Your task to perform on an android device: Search for "lenovo thinkpad" on bestbuy.com, select the first entry, add it to the cart, then select checkout. Image 0: 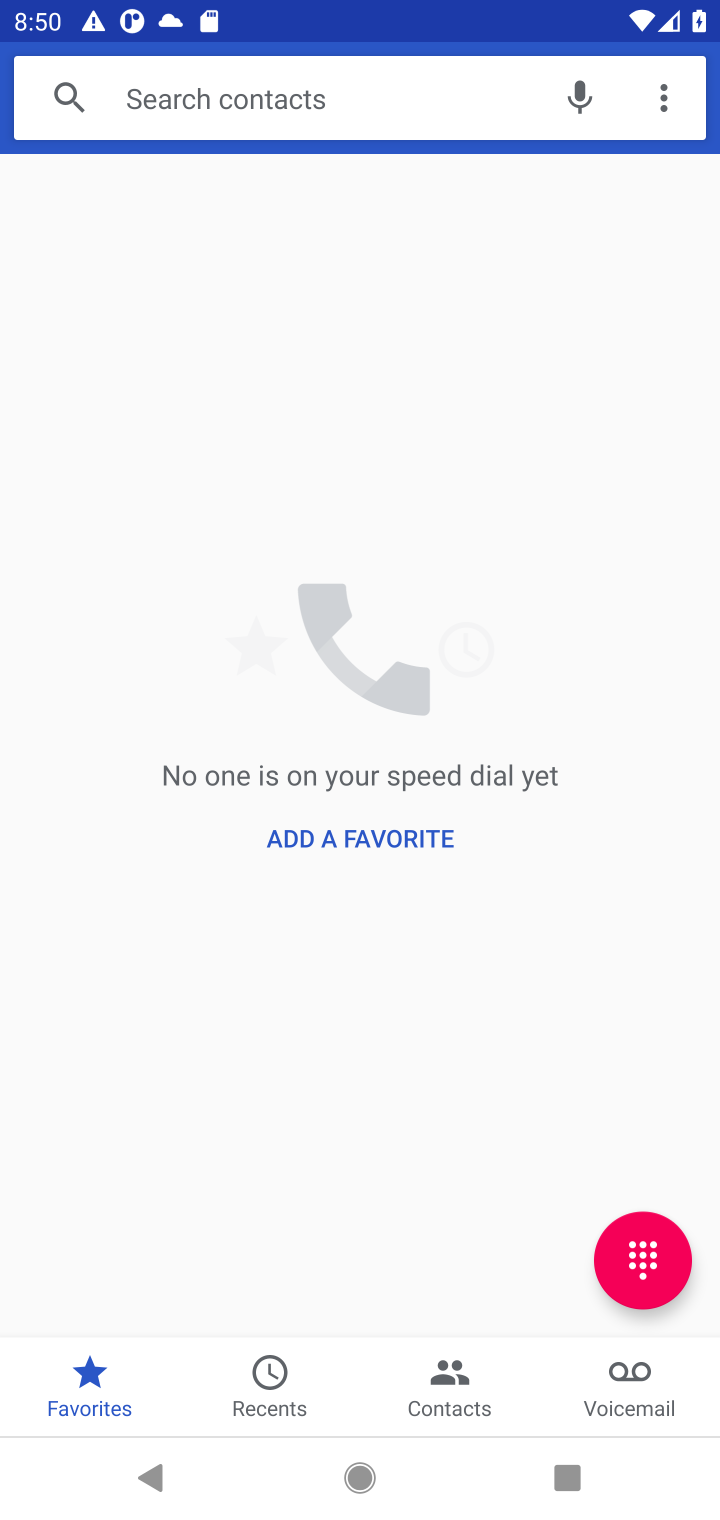
Step 0: press home button
Your task to perform on an android device: Search for "lenovo thinkpad" on bestbuy.com, select the first entry, add it to the cart, then select checkout. Image 1: 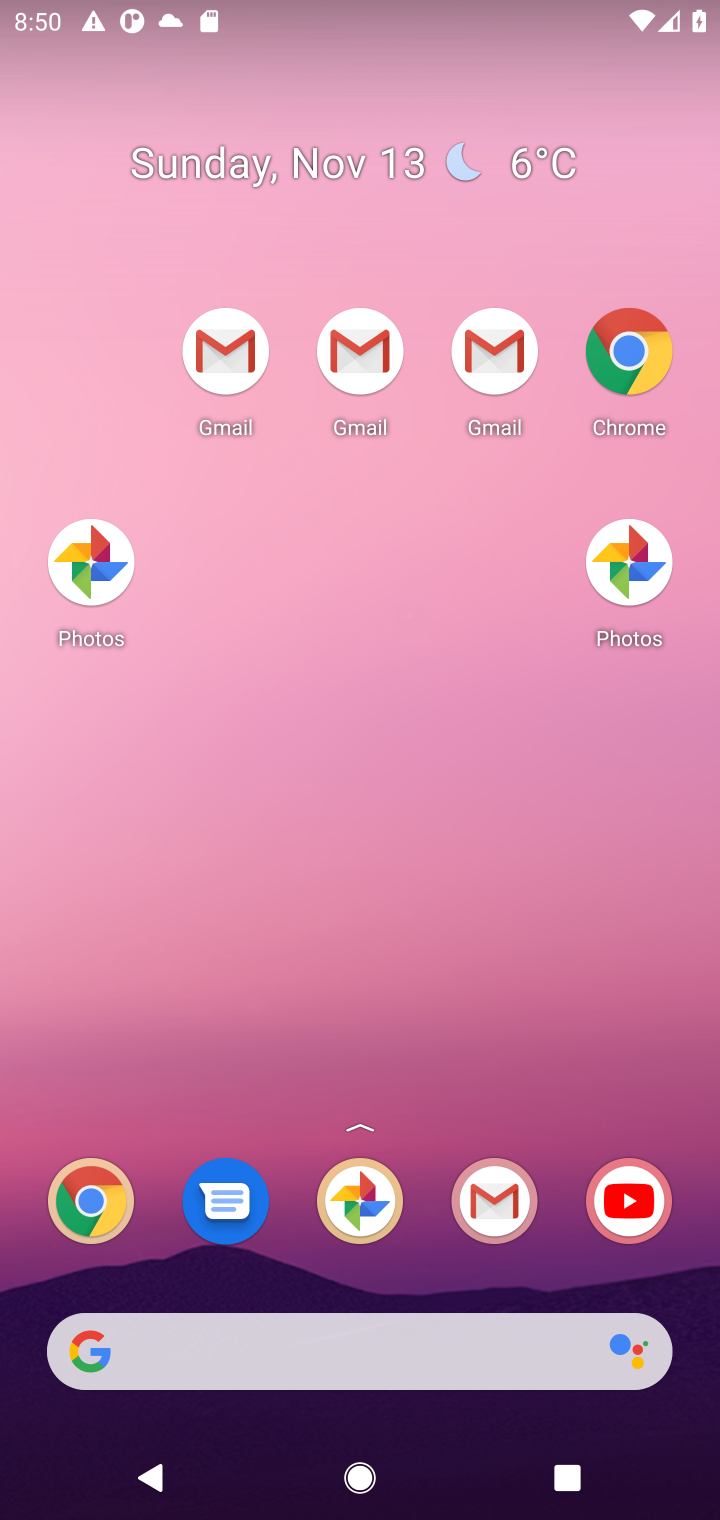
Step 1: drag from (431, 967) to (414, 267)
Your task to perform on an android device: Search for "lenovo thinkpad" on bestbuy.com, select the first entry, add it to the cart, then select checkout. Image 2: 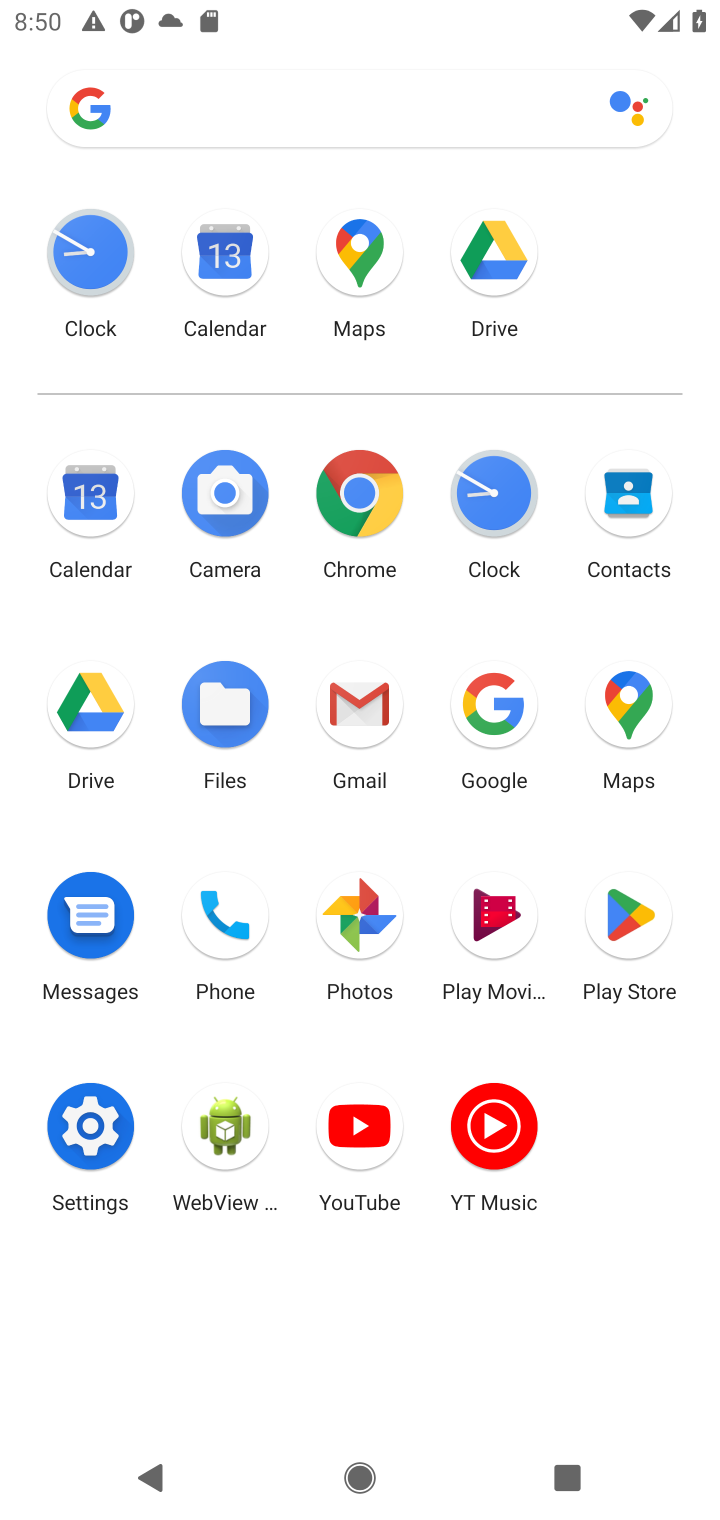
Step 2: click (365, 490)
Your task to perform on an android device: Search for "lenovo thinkpad" on bestbuy.com, select the first entry, add it to the cart, then select checkout. Image 3: 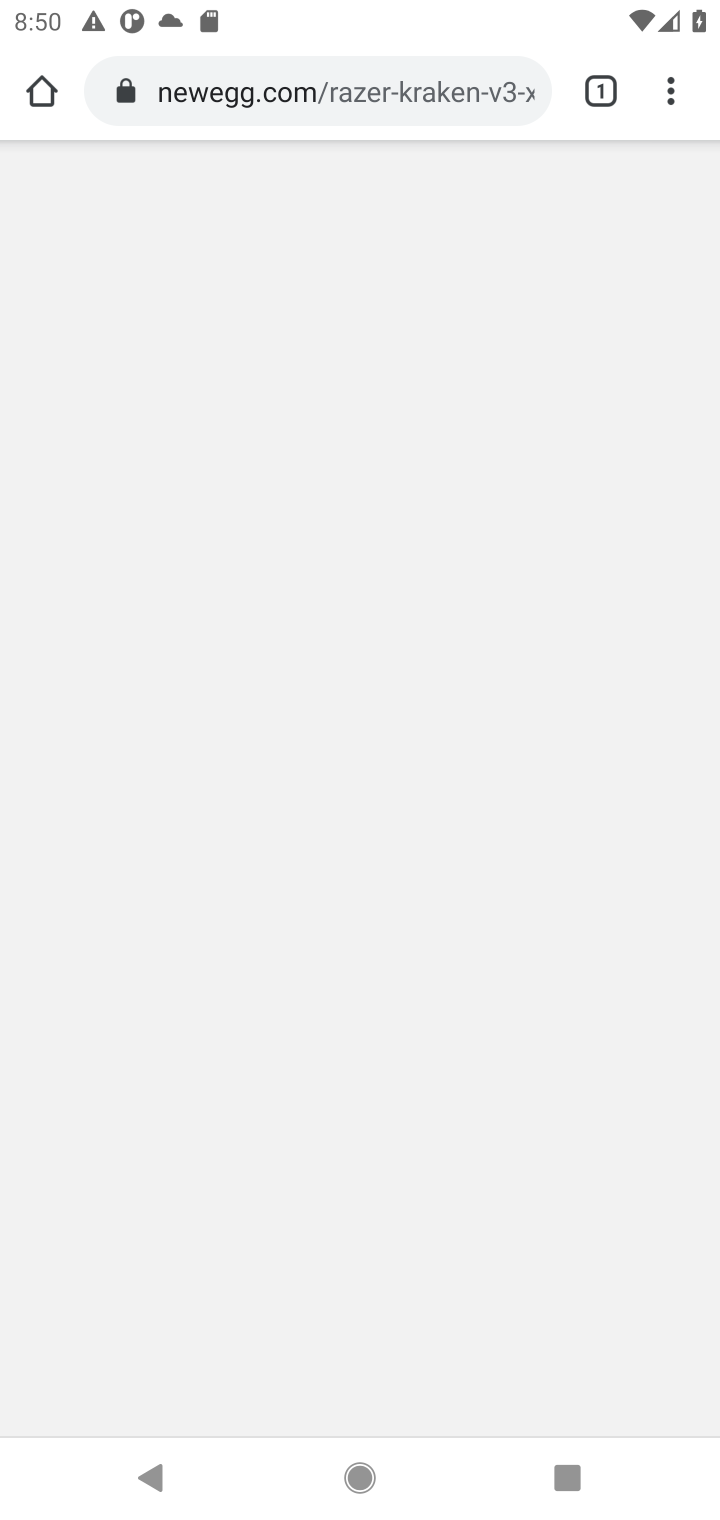
Step 3: click (346, 86)
Your task to perform on an android device: Search for "lenovo thinkpad" on bestbuy.com, select the first entry, add it to the cart, then select checkout. Image 4: 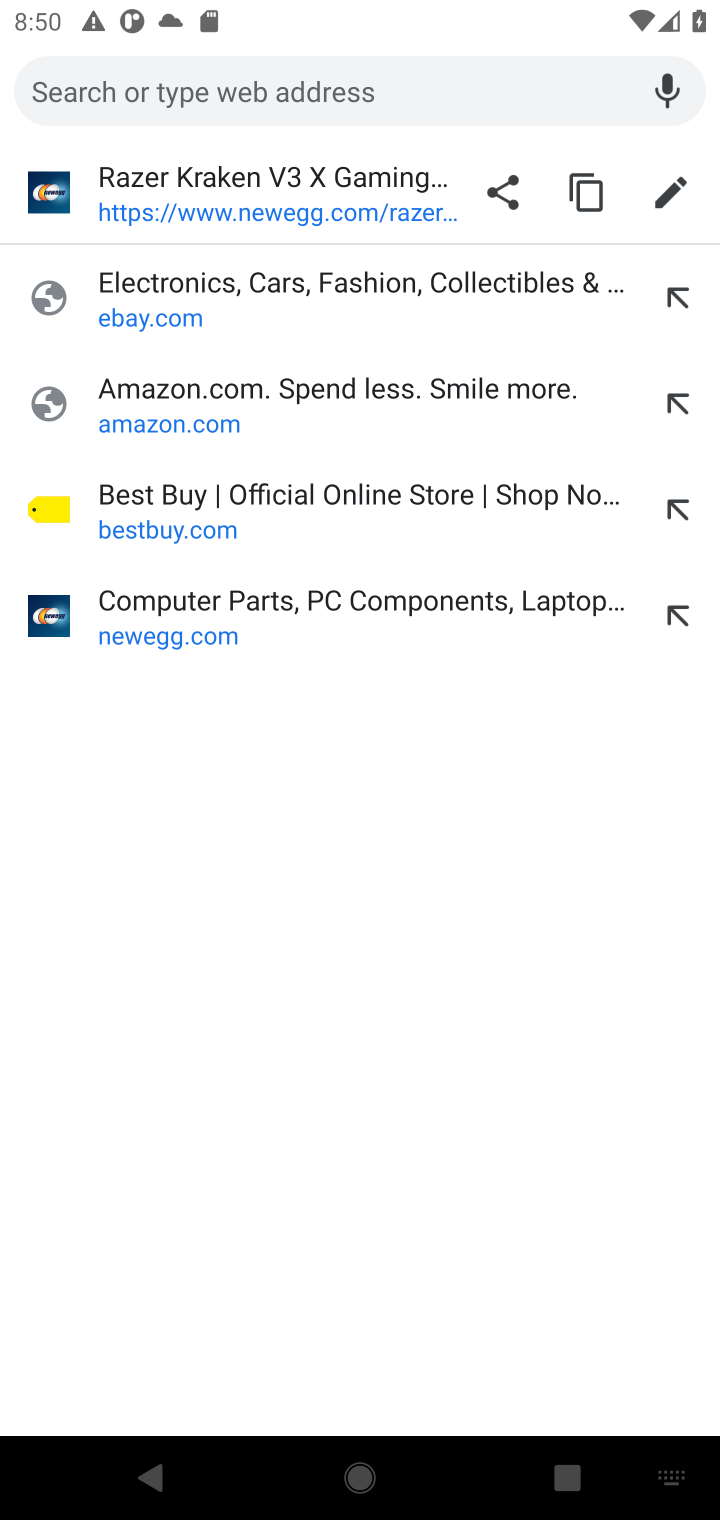
Step 4: type "bestbuy.com"
Your task to perform on an android device: Search for "lenovo thinkpad" on bestbuy.com, select the first entry, add it to the cart, then select checkout. Image 5: 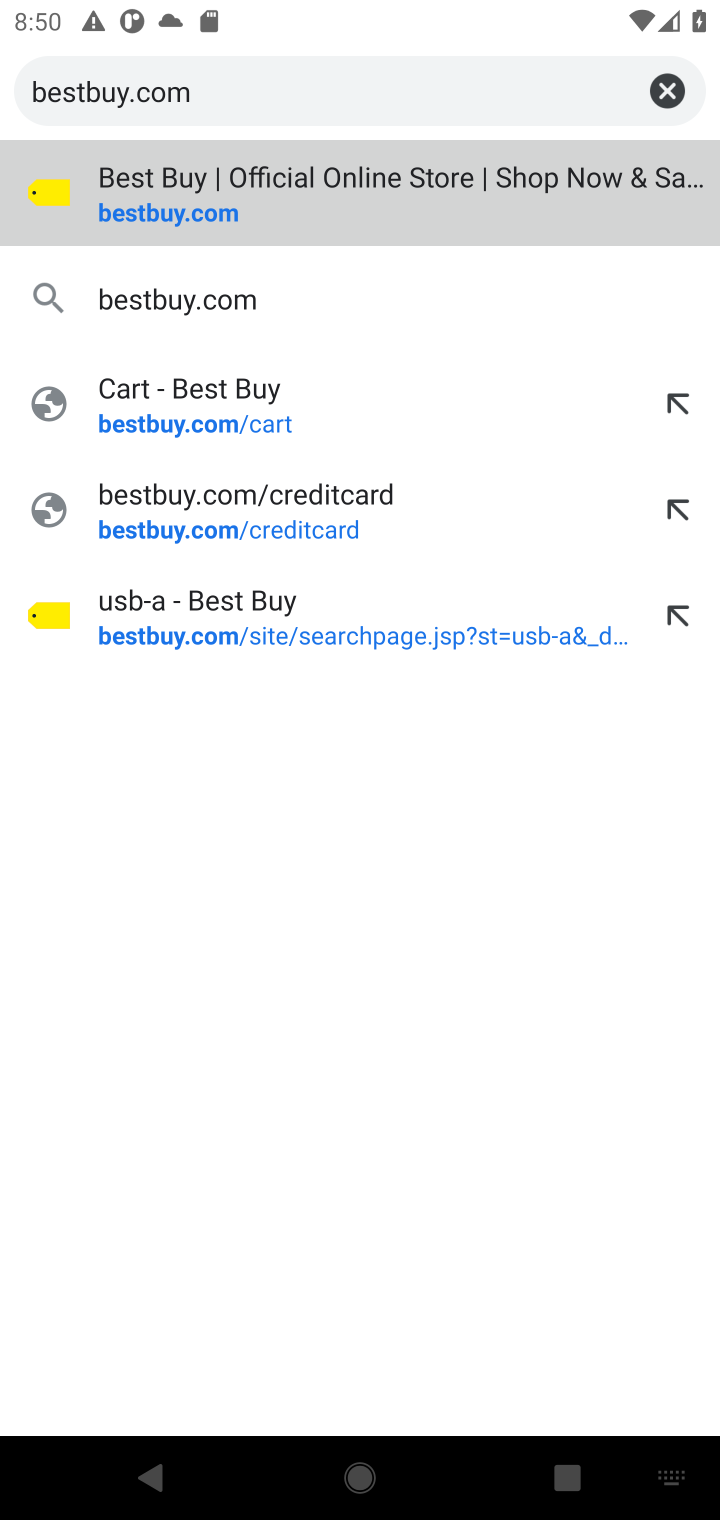
Step 5: press enter
Your task to perform on an android device: Search for "lenovo thinkpad" on bestbuy.com, select the first entry, add it to the cart, then select checkout. Image 6: 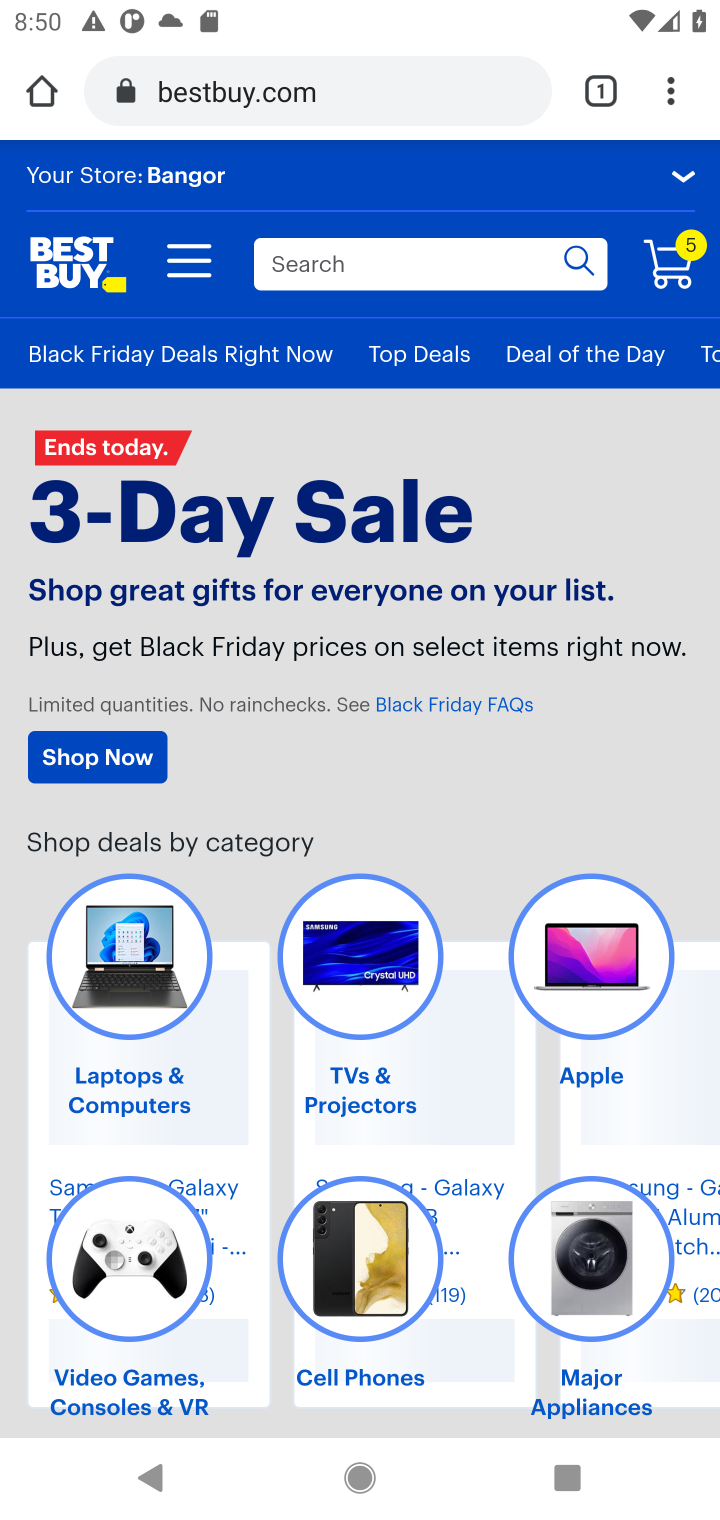
Step 6: click (448, 264)
Your task to perform on an android device: Search for "lenovo thinkpad" on bestbuy.com, select the first entry, add it to the cart, then select checkout. Image 7: 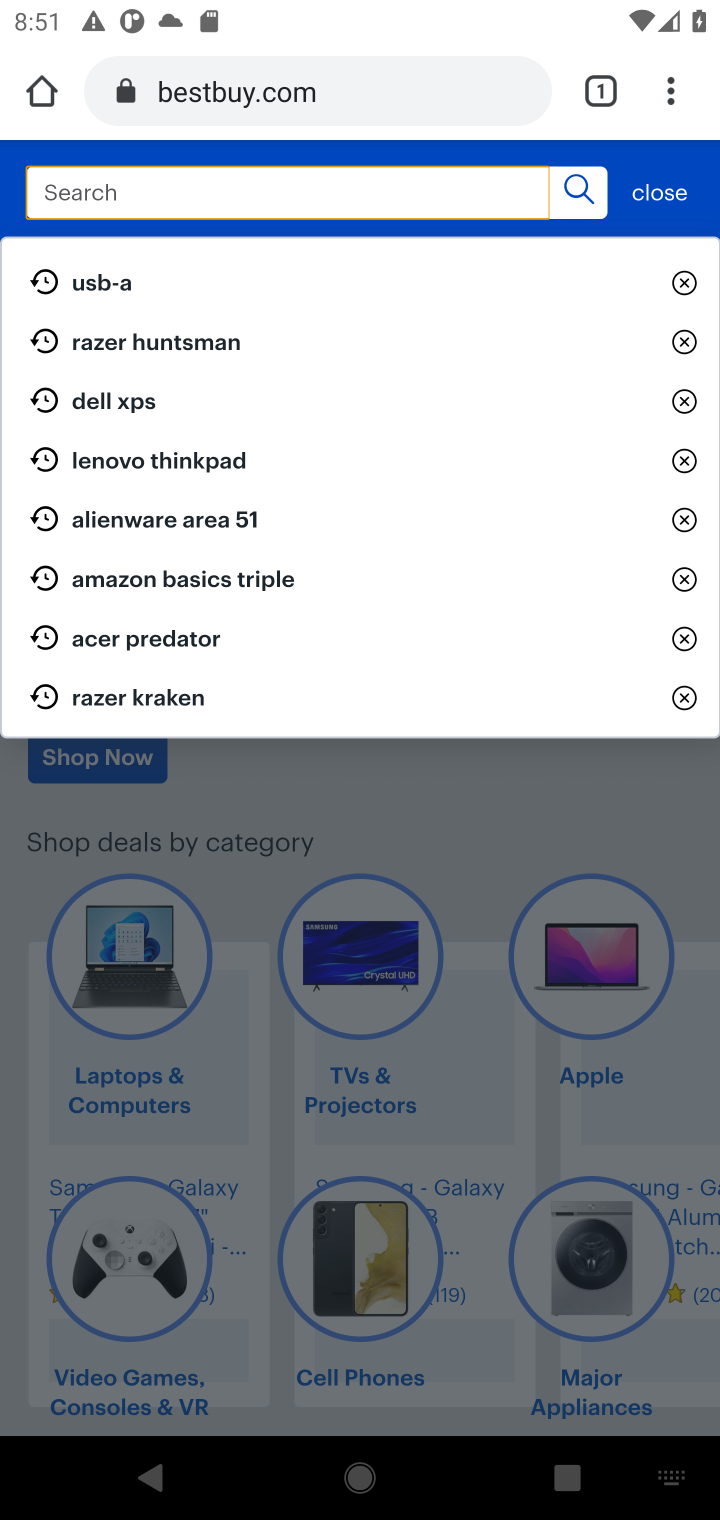
Step 7: type "lenovo thinkpad"
Your task to perform on an android device: Search for "lenovo thinkpad" on bestbuy.com, select the first entry, add it to the cart, then select checkout. Image 8: 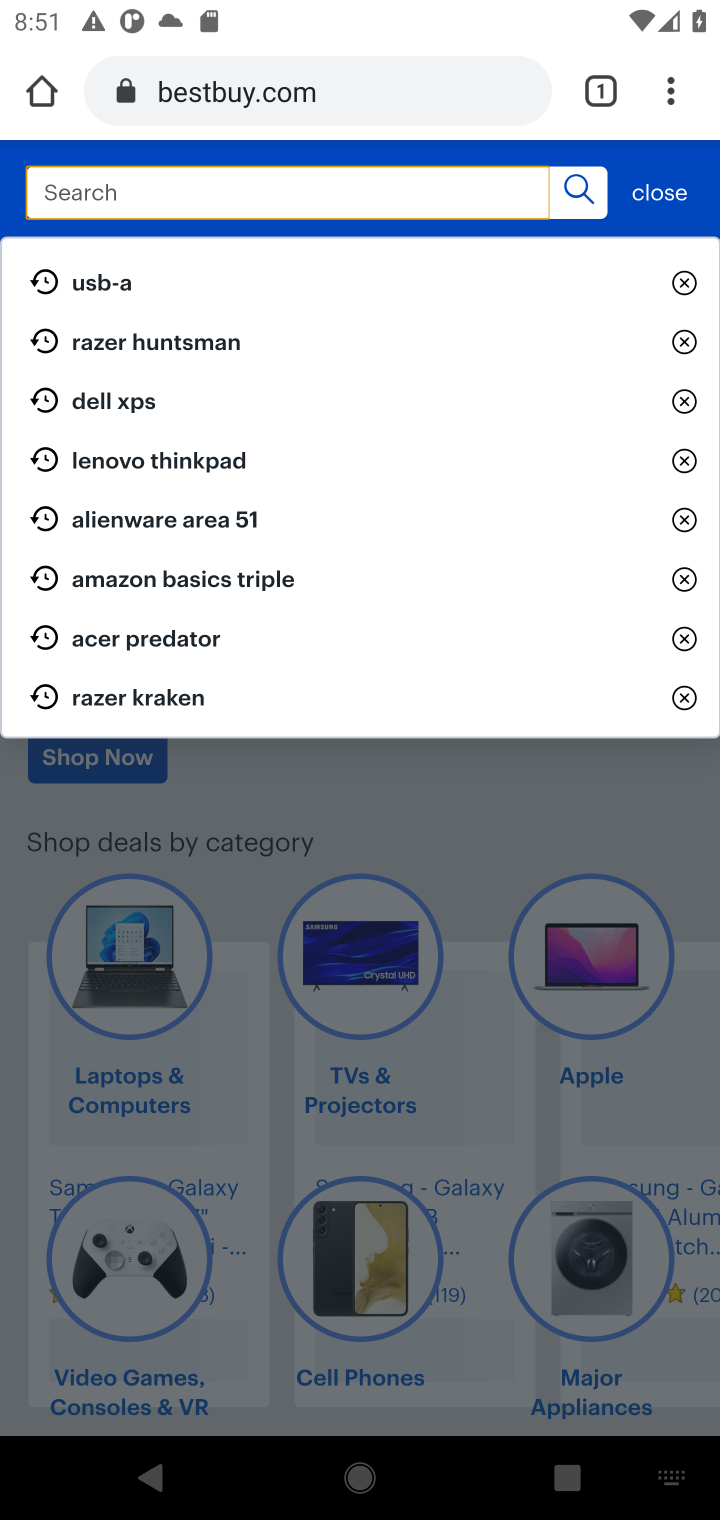
Step 8: press enter
Your task to perform on an android device: Search for "lenovo thinkpad" on bestbuy.com, select the first entry, add it to the cart, then select checkout. Image 9: 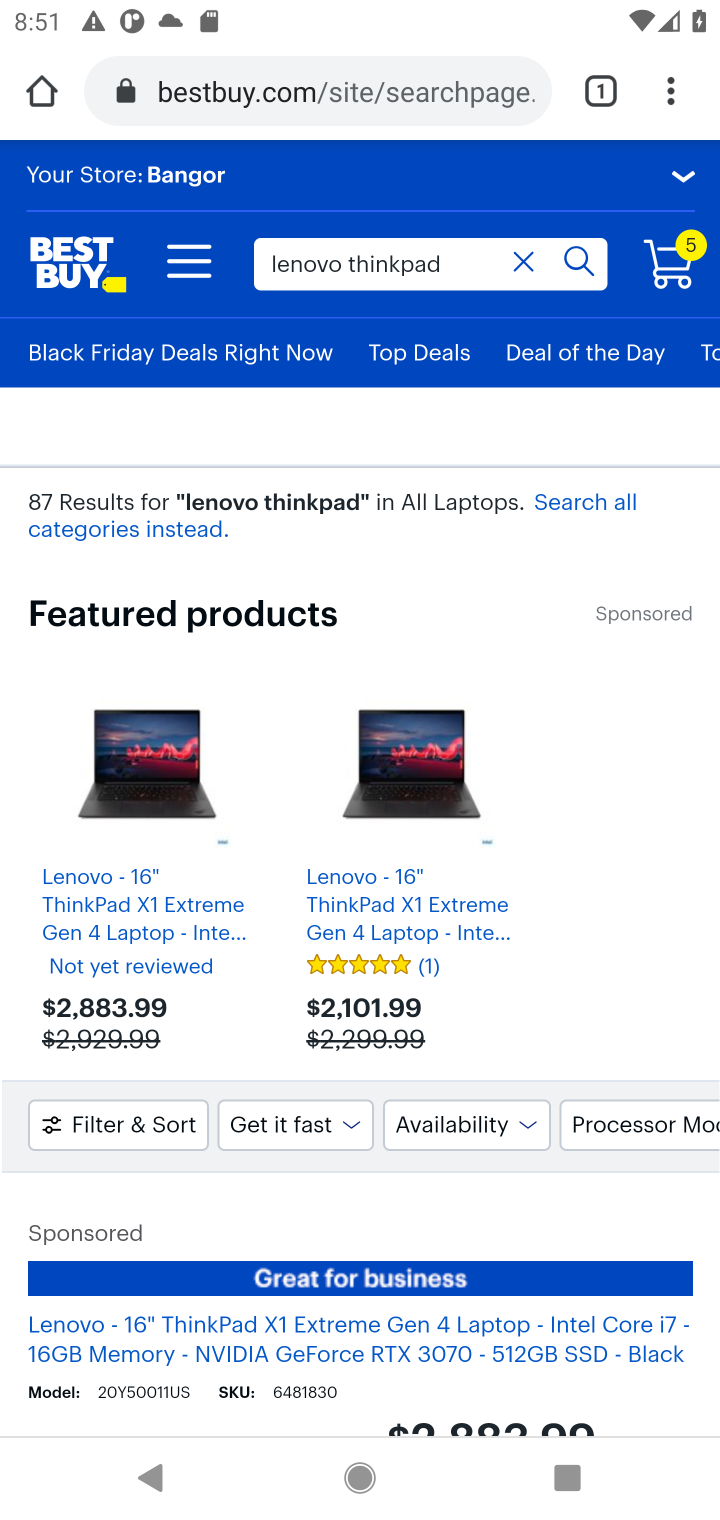
Step 9: drag from (430, 1141) to (429, 378)
Your task to perform on an android device: Search for "lenovo thinkpad" on bestbuy.com, select the first entry, add it to the cart, then select checkout. Image 10: 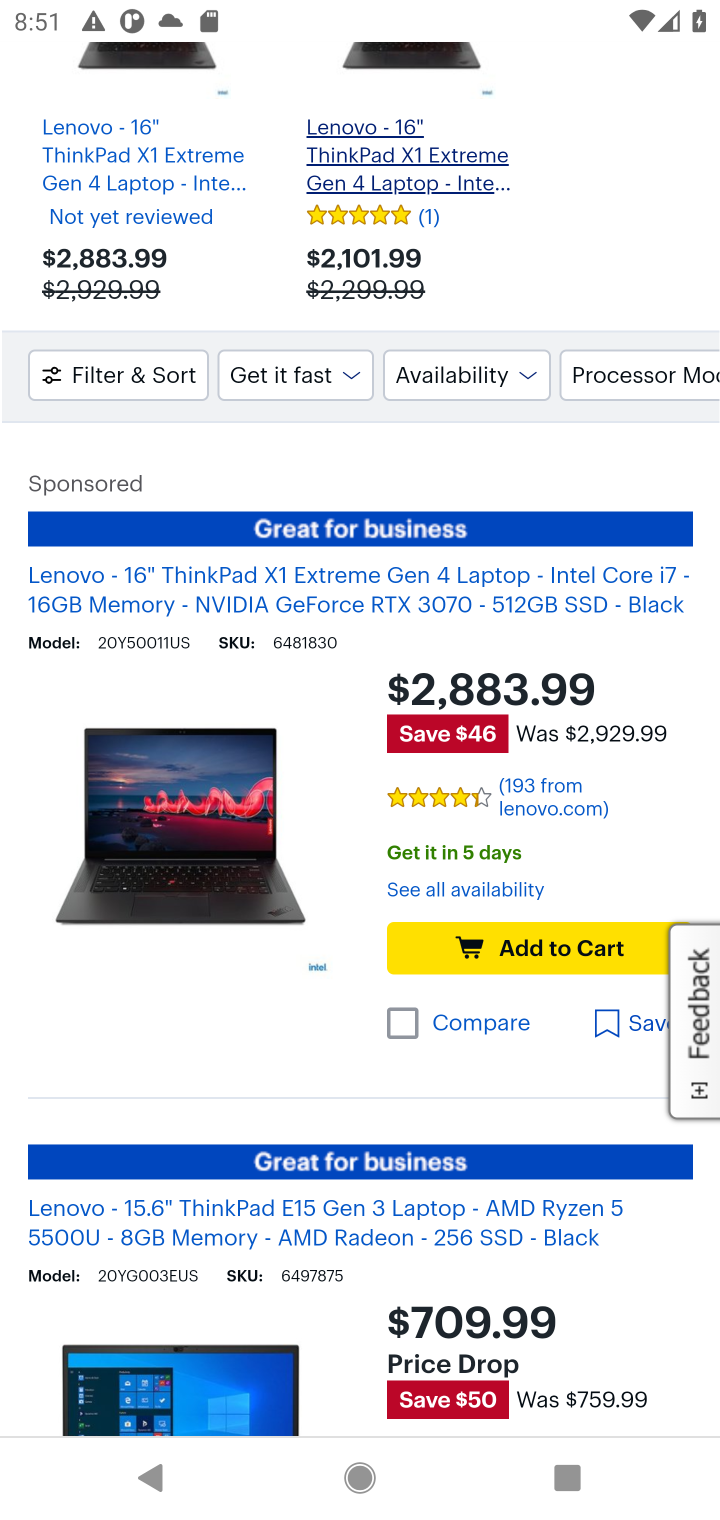
Step 10: click (541, 953)
Your task to perform on an android device: Search for "lenovo thinkpad" on bestbuy.com, select the first entry, add it to the cart, then select checkout. Image 11: 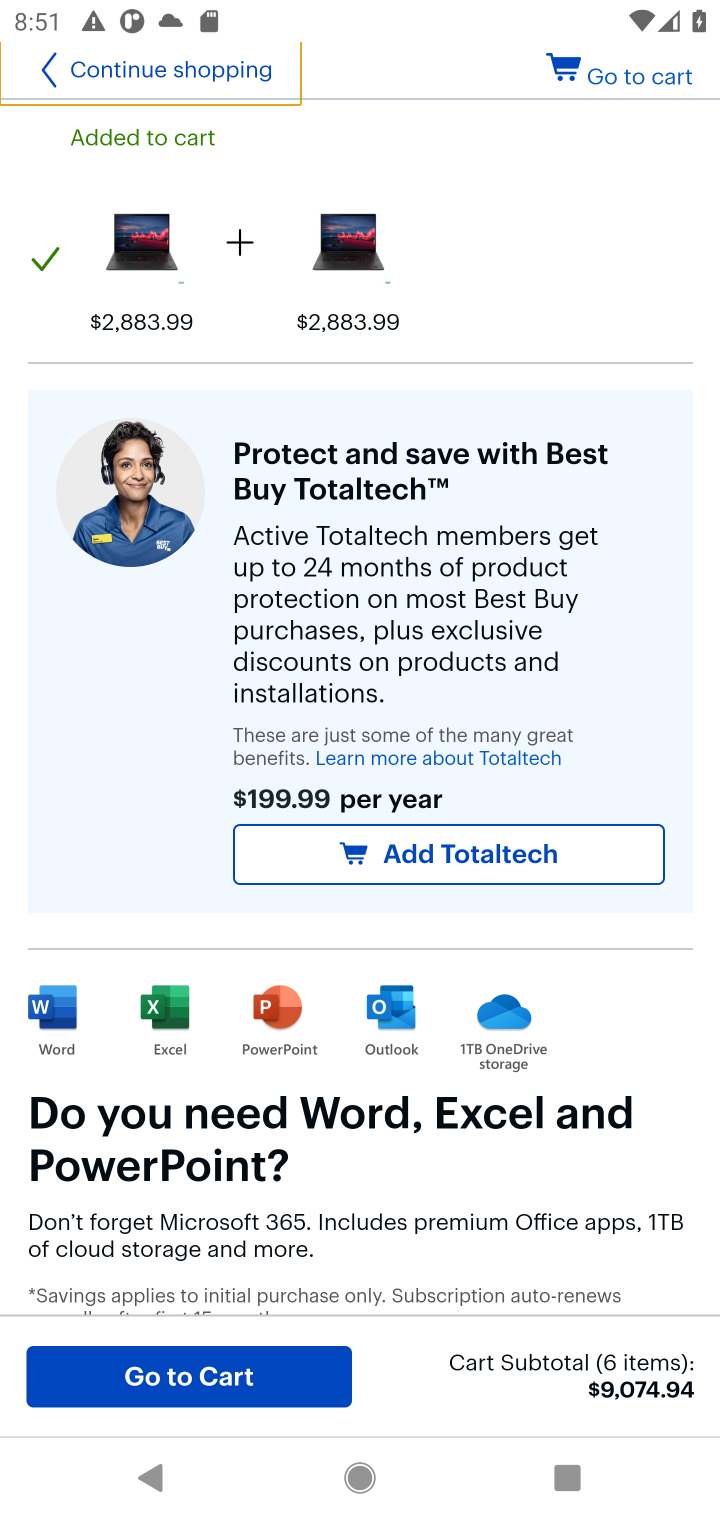
Step 11: click (273, 1389)
Your task to perform on an android device: Search for "lenovo thinkpad" on bestbuy.com, select the first entry, add it to the cart, then select checkout. Image 12: 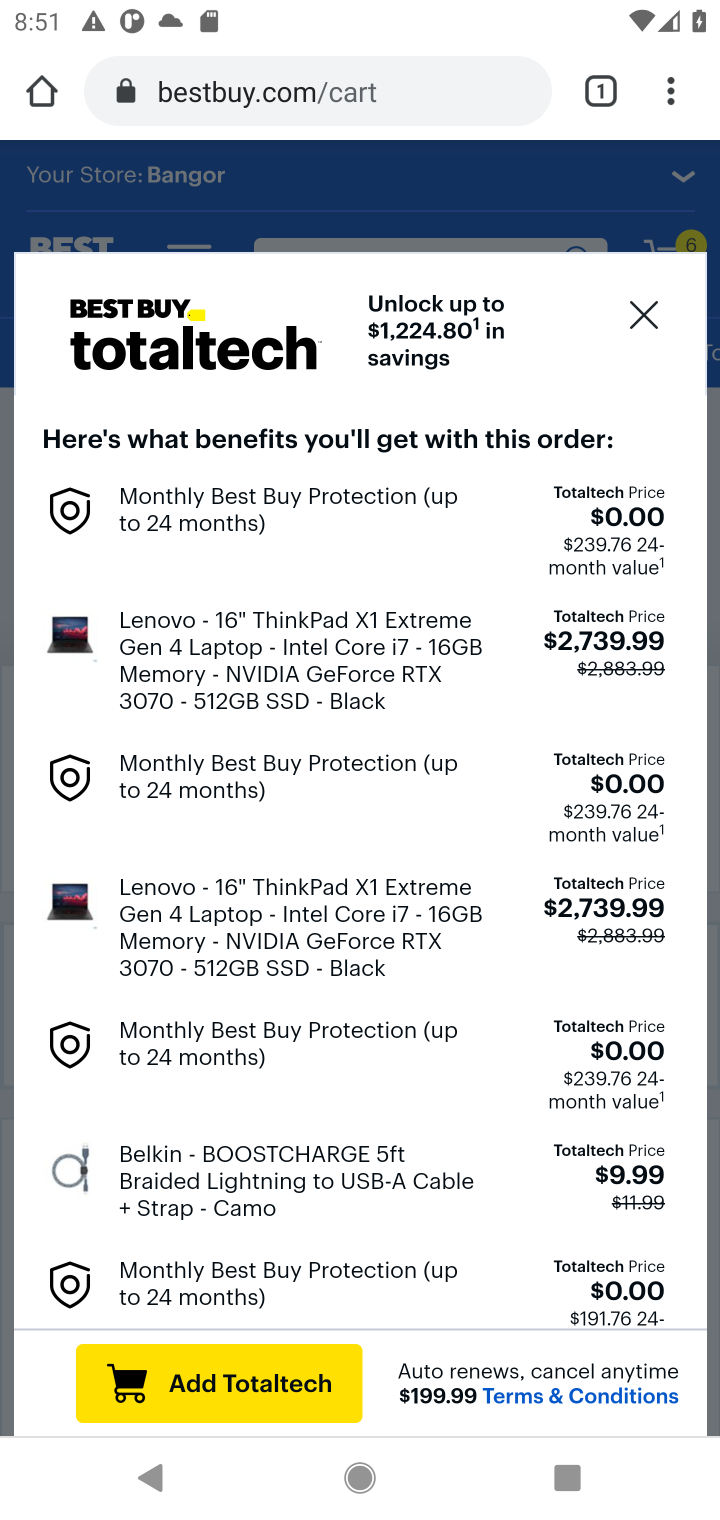
Step 12: click (636, 304)
Your task to perform on an android device: Search for "lenovo thinkpad" on bestbuy.com, select the first entry, add it to the cart, then select checkout. Image 13: 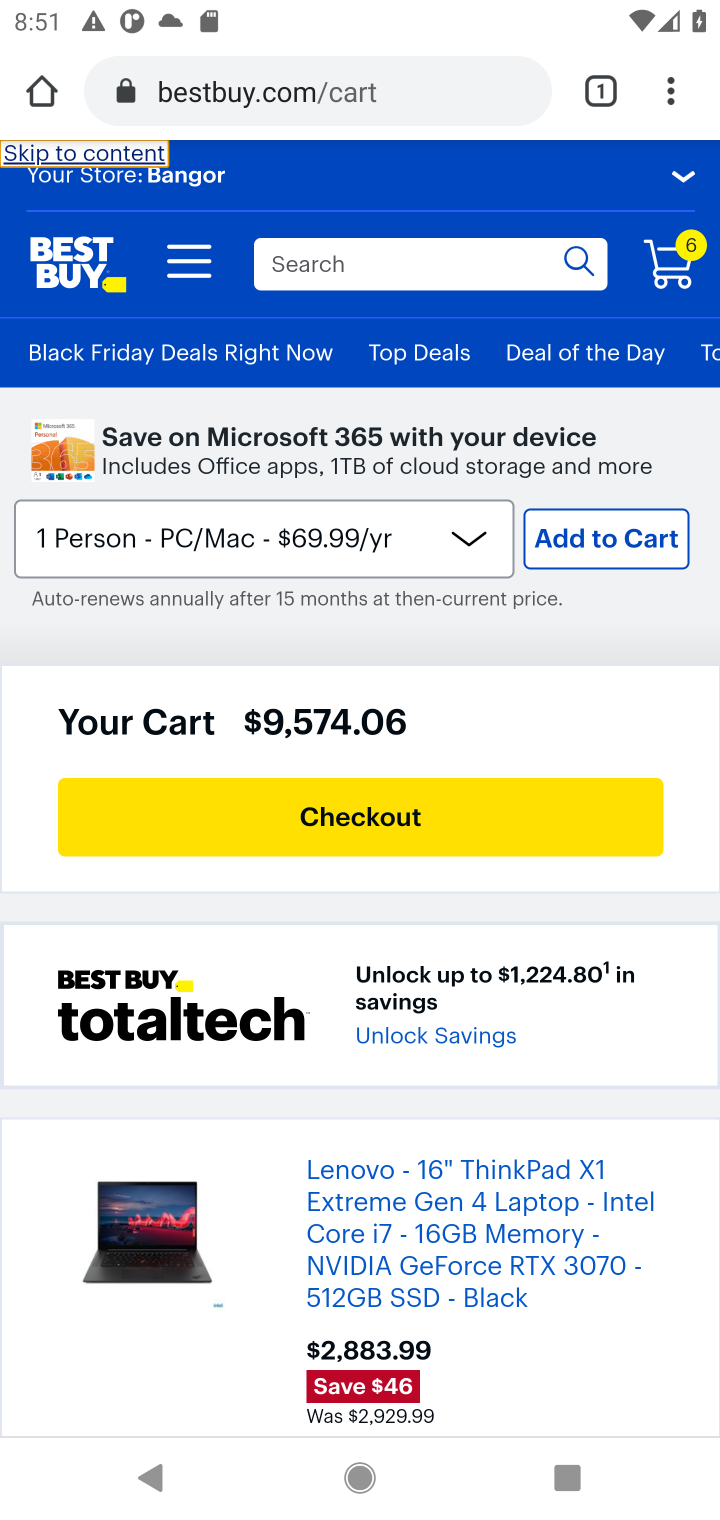
Step 13: click (376, 828)
Your task to perform on an android device: Search for "lenovo thinkpad" on bestbuy.com, select the first entry, add it to the cart, then select checkout. Image 14: 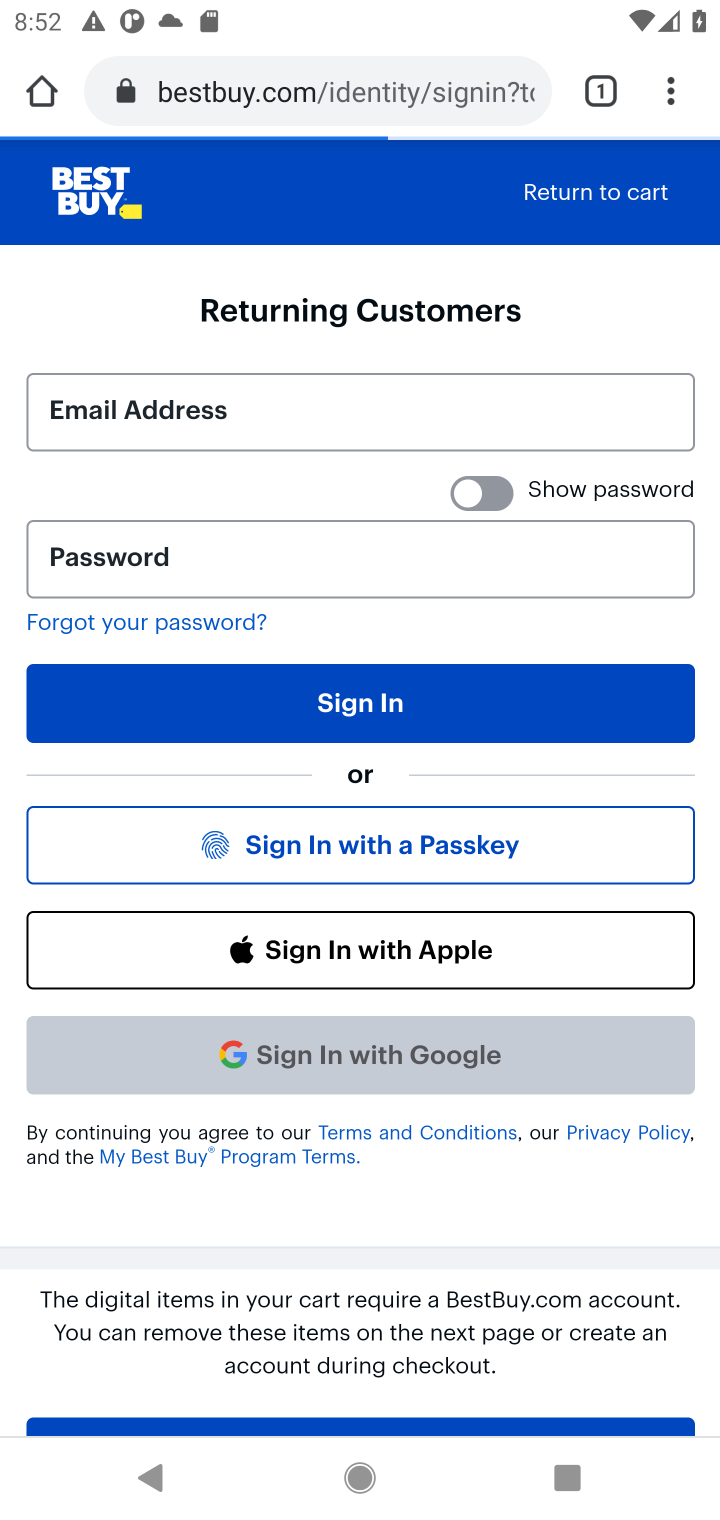
Step 14: task complete